Your task to perform on an android device: toggle sleep mode Image 0: 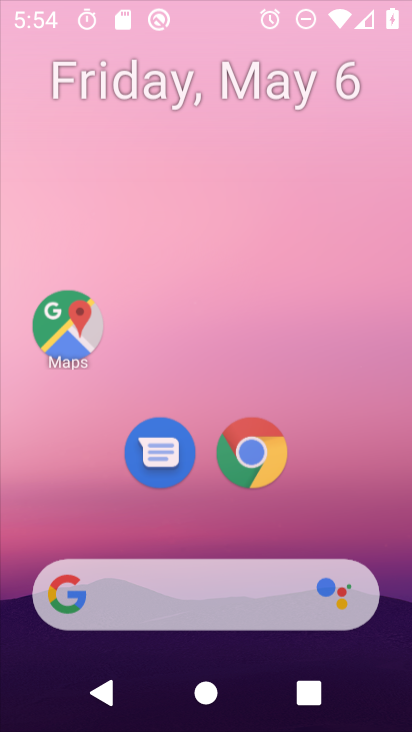
Step 0: drag from (317, 550) to (285, 213)
Your task to perform on an android device: toggle sleep mode Image 1: 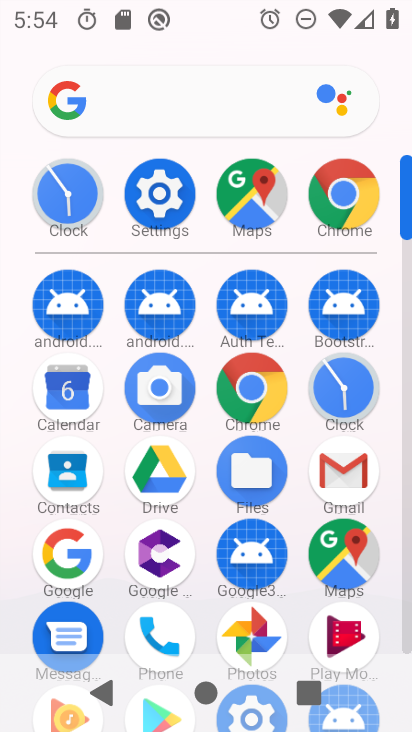
Step 1: click (148, 219)
Your task to perform on an android device: toggle sleep mode Image 2: 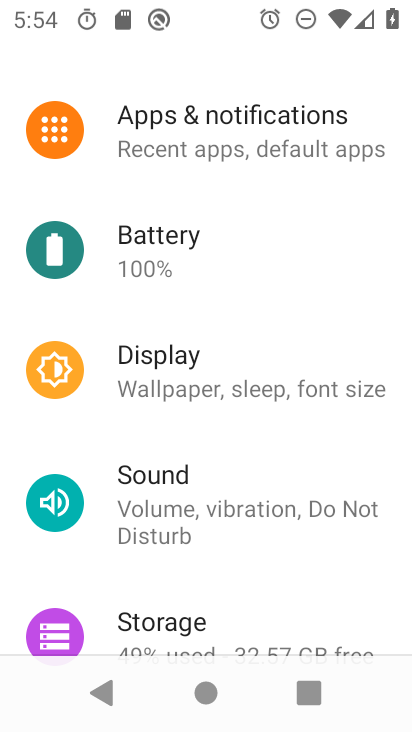
Step 2: task complete